Your task to perform on an android device: Go to Android settings Image 0: 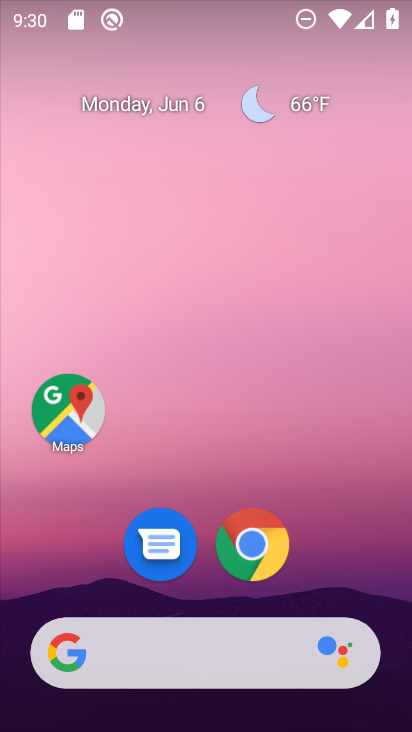
Step 0: drag from (215, 550) to (226, 42)
Your task to perform on an android device: Go to Android settings Image 1: 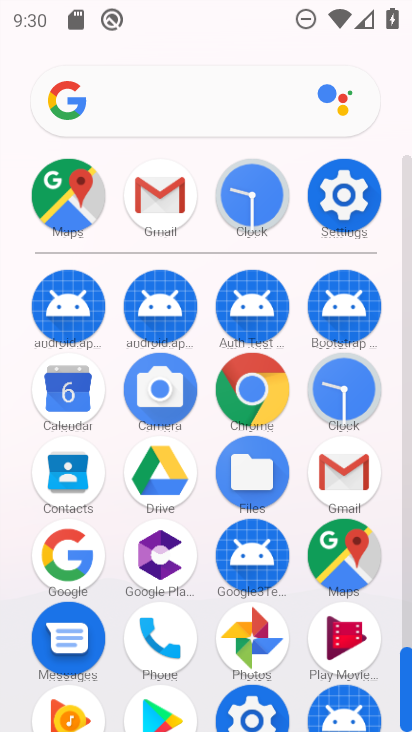
Step 1: click (351, 186)
Your task to perform on an android device: Go to Android settings Image 2: 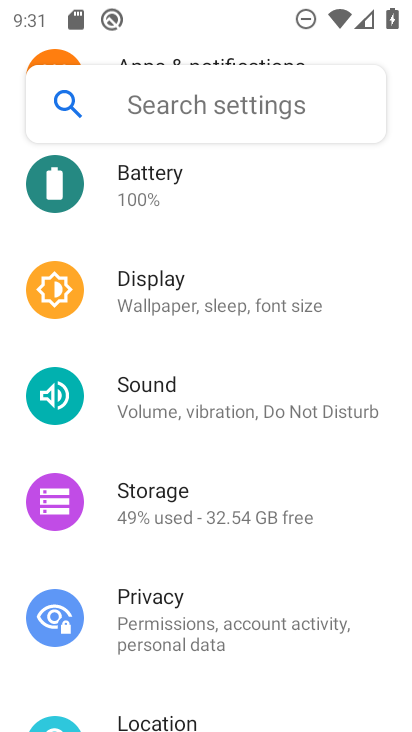
Step 2: task complete